Your task to perform on an android device: turn on notifications settings in the gmail app Image 0: 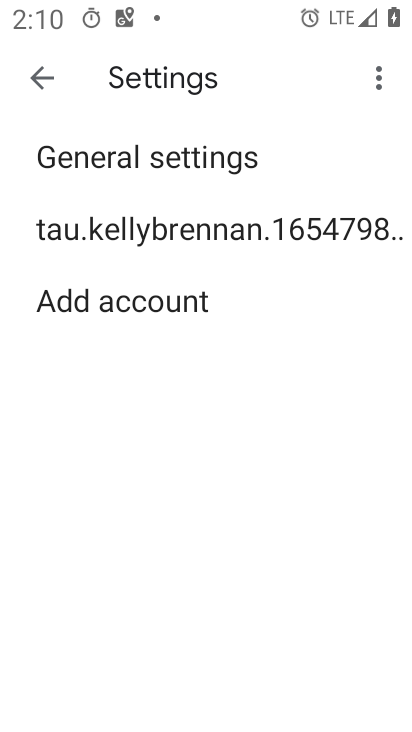
Step 0: press home button
Your task to perform on an android device: turn on notifications settings in the gmail app Image 1: 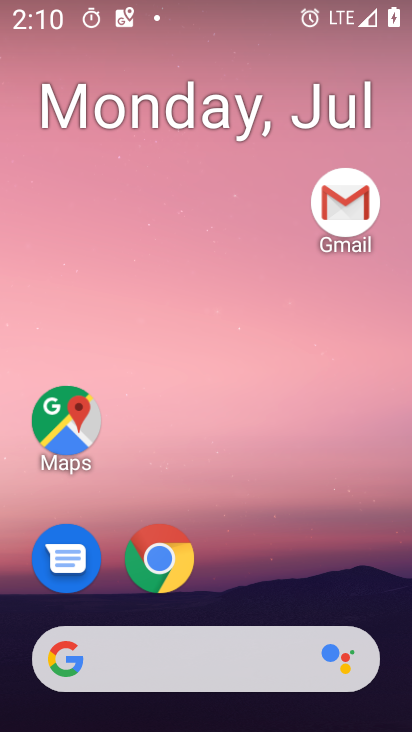
Step 1: drag from (340, 574) to (341, 159)
Your task to perform on an android device: turn on notifications settings in the gmail app Image 2: 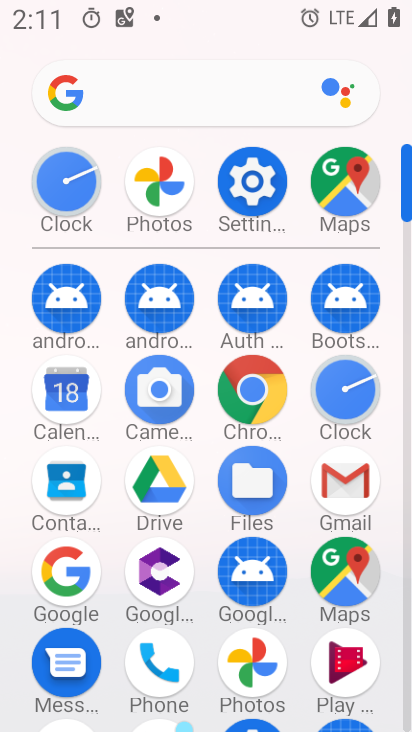
Step 2: click (353, 474)
Your task to perform on an android device: turn on notifications settings in the gmail app Image 3: 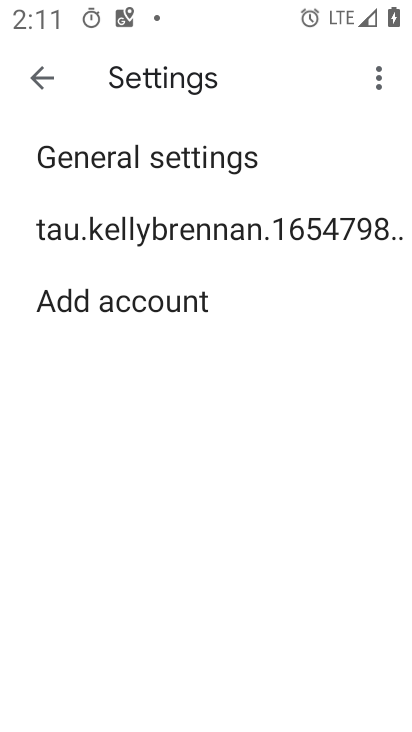
Step 3: click (264, 236)
Your task to perform on an android device: turn on notifications settings in the gmail app Image 4: 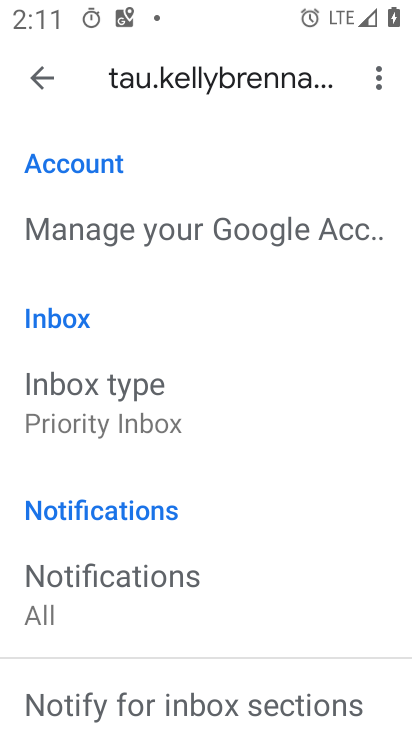
Step 4: drag from (324, 428) to (324, 337)
Your task to perform on an android device: turn on notifications settings in the gmail app Image 5: 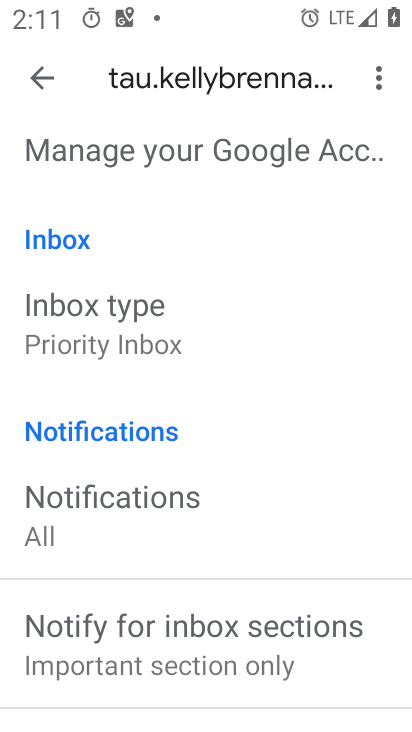
Step 5: drag from (302, 467) to (299, 384)
Your task to perform on an android device: turn on notifications settings in the gmail app Image 6: 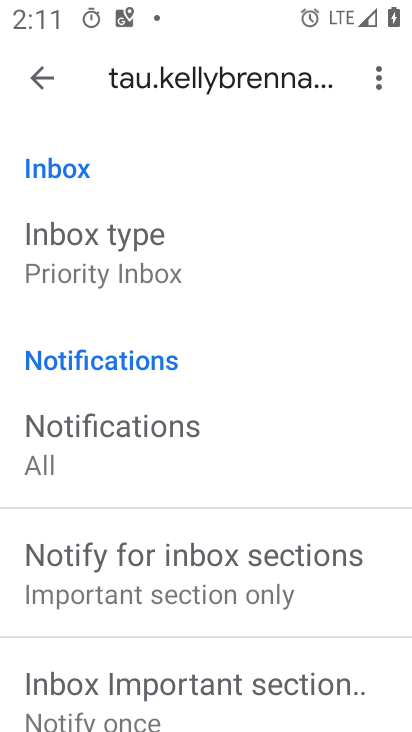
Step 6: drag from (288, 503) to (285, 389)
Your task to perform on an android device: turn on notifications settings in the gmail app Image 7: 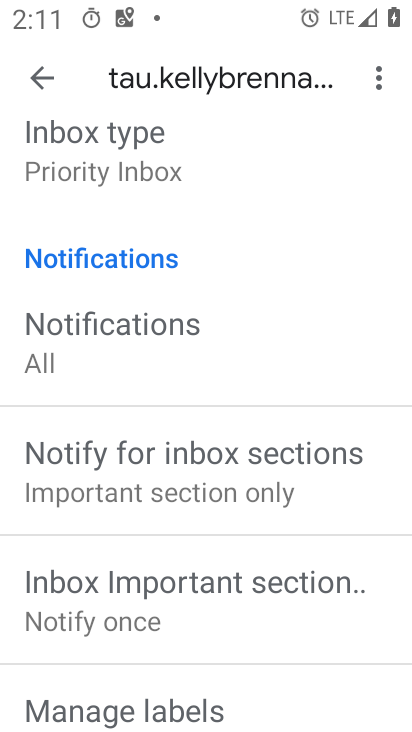
Step 7: drag from (273, 527) to (268, 417)
Your task to perform on an android device: turn on notifications settings in the gmail app Image 8: 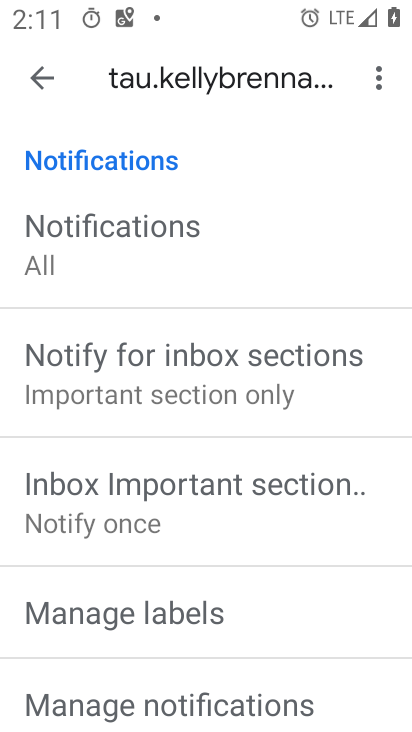
Step 8: drag from (277, 571) to (283, 473)
Your task to perform on an android device: turn on notifications settings in the gmail app Image 9: 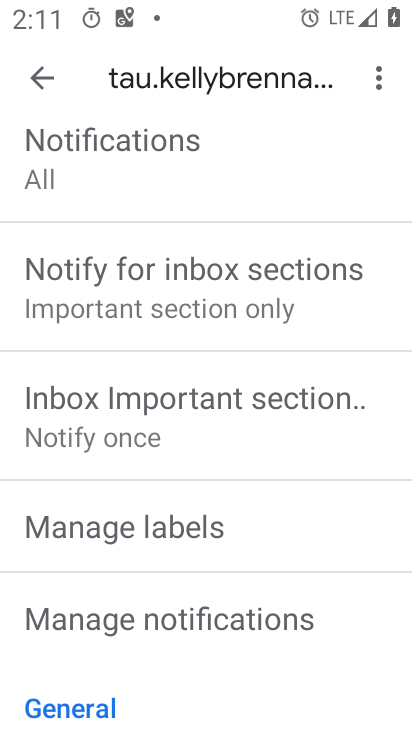
Step 9: drag from (304, 632) to (304, 515)
Your task to perform on an android device: turn on notifications settings in the gmail app Image 10: 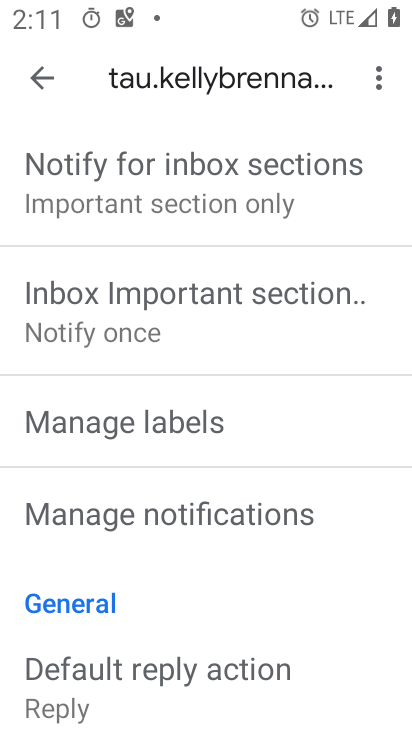
Step 10: click (254, 509)
Your task to perform on an android device: turn on notifications settings in the gmail app Image 11: 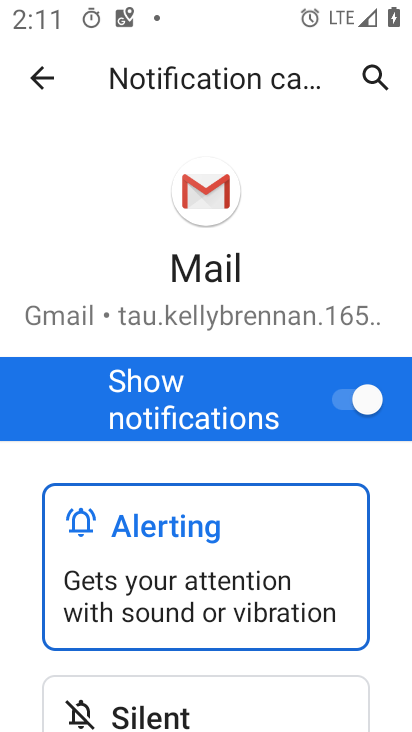
Step 11: task complete